Your task to perform on an android device: Go to wifi settings Image 0: 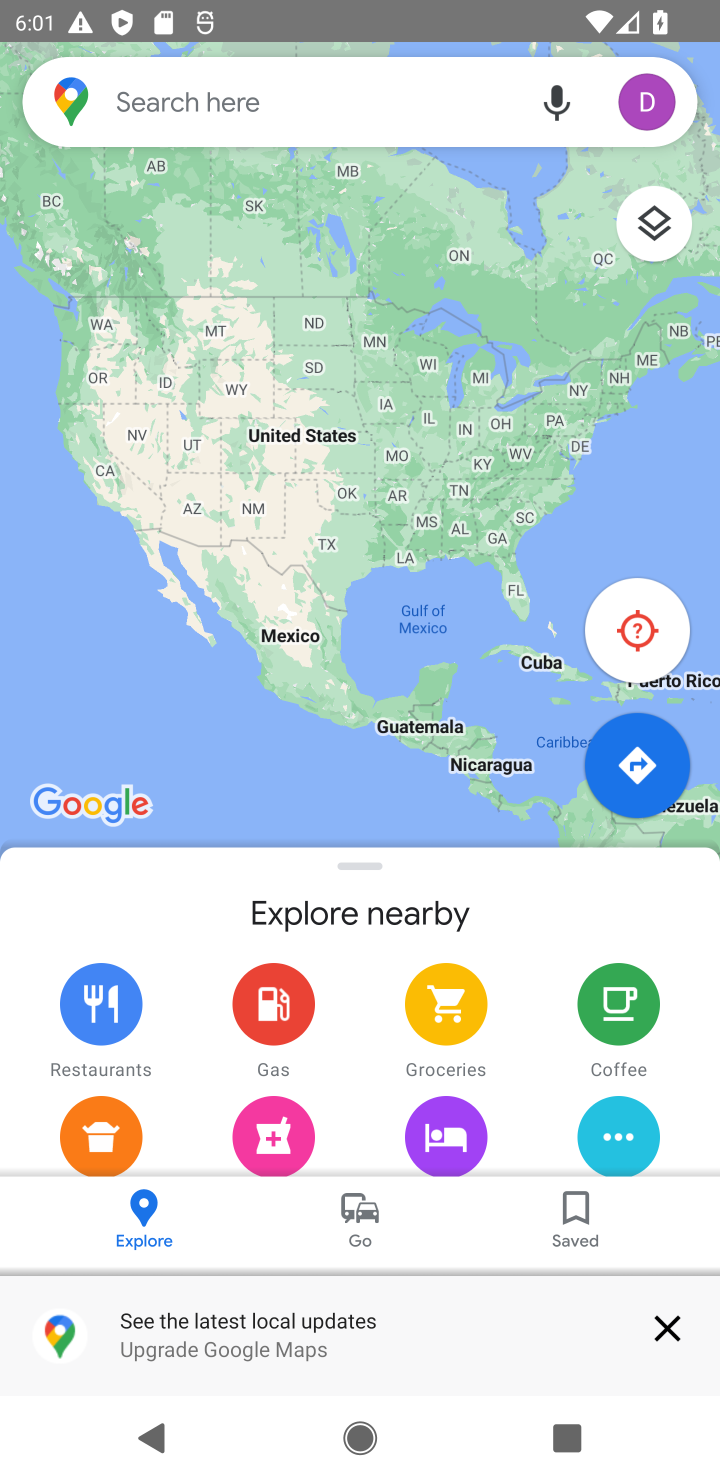
Step 0: press home button
Your task to perform on an android device: Go to wifi settings Image 1: 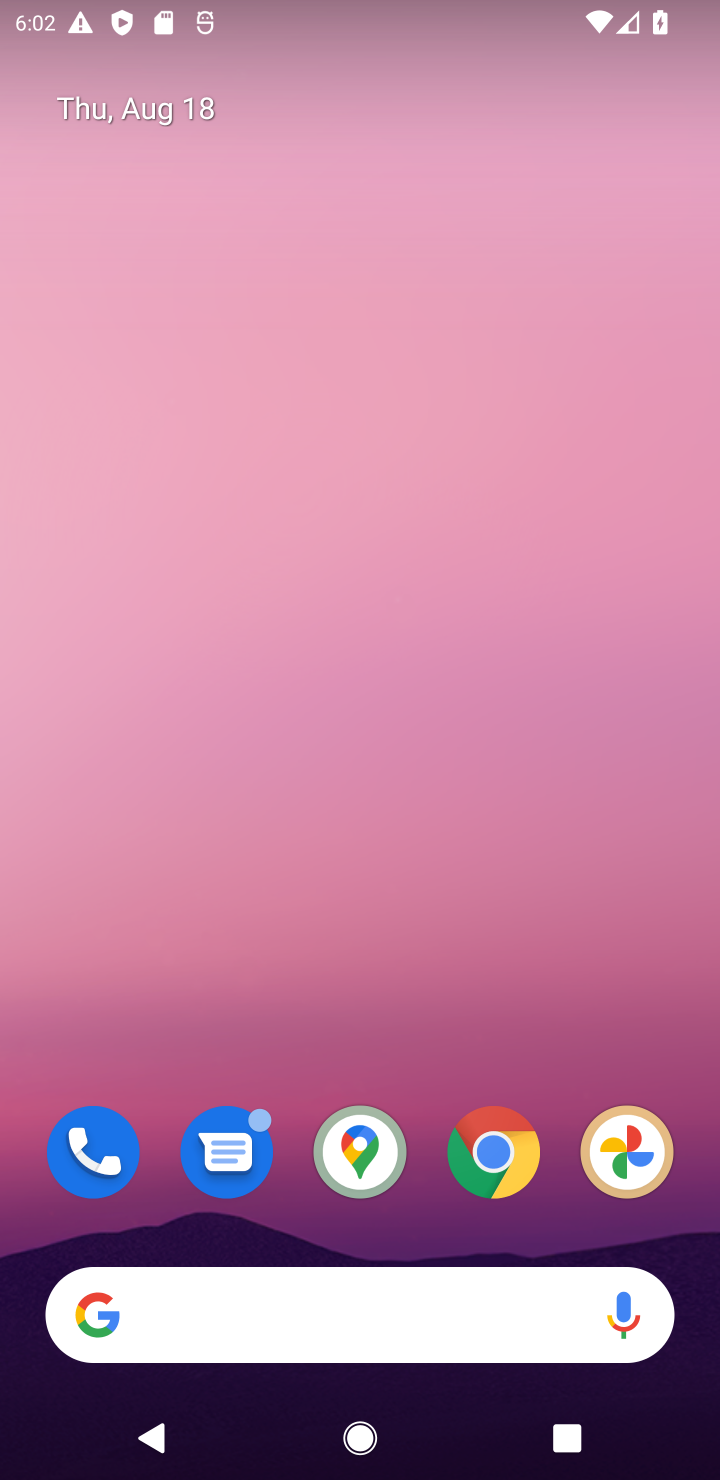
Step 1: drag from (196, 10) to (104, 688)
Your task to perform on an android device: Go to wifi settings Image 2: 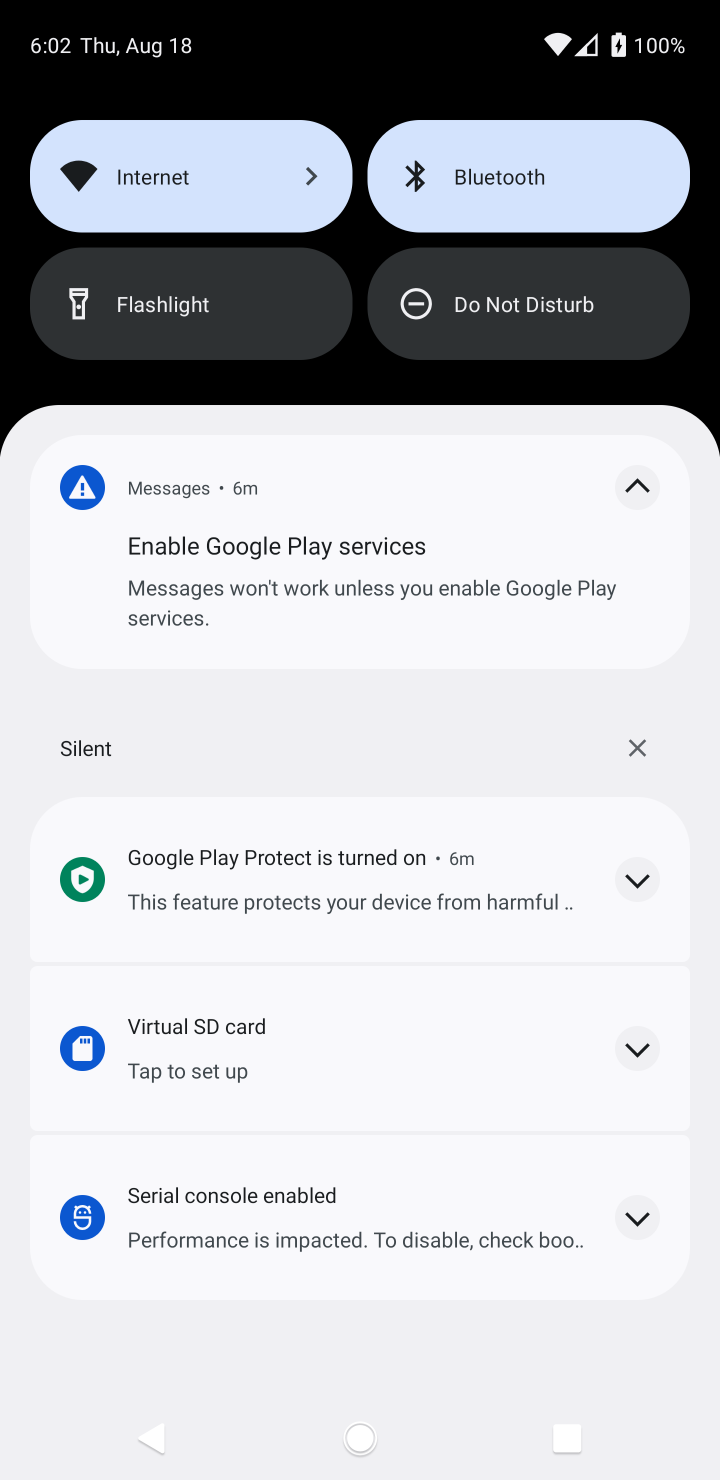
Step 2: click (190, 177)
Your task to perform on an android device: Go to wifi settings Image 3: 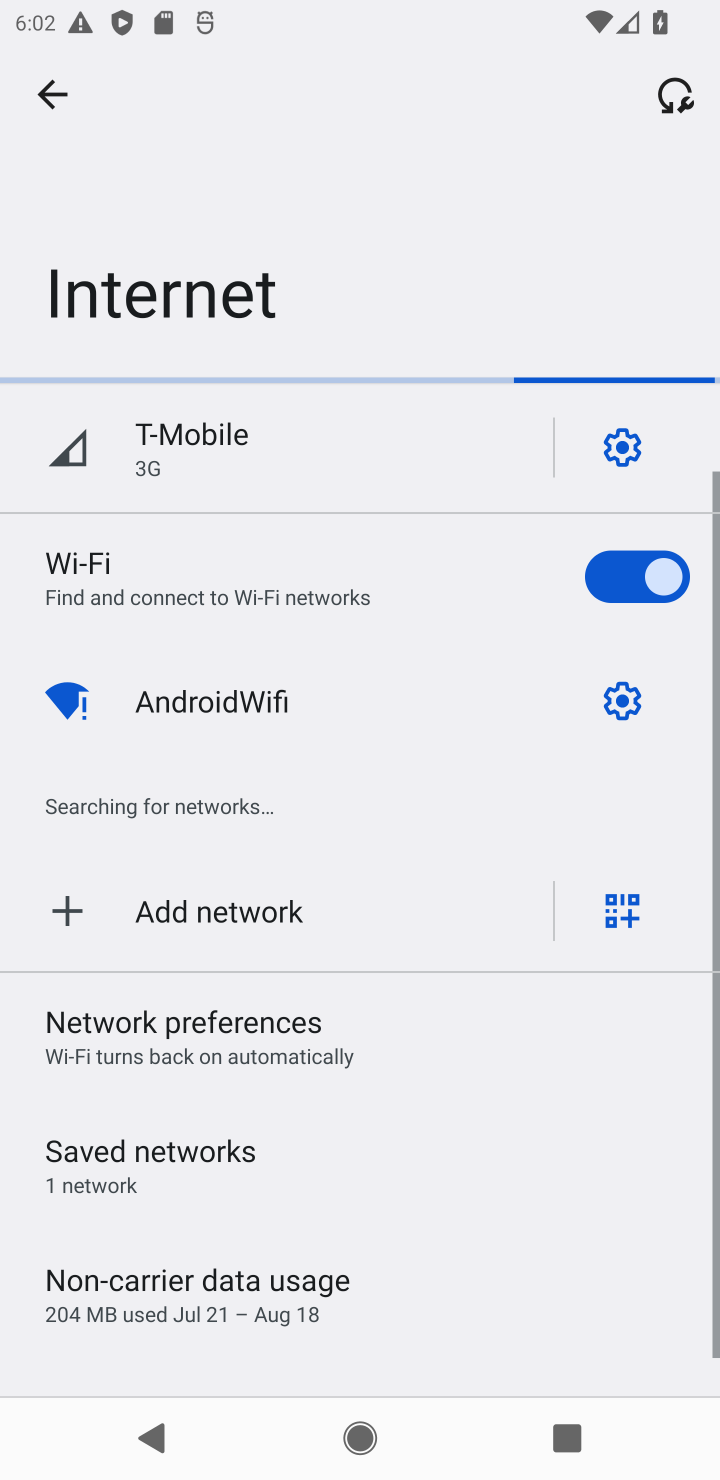
Step 3: task complete